Your task to perform on an android device: open app "Cash App" (install if not already installed) and enter user name: "submodules@gmail.com" and password: "heavenly" Image 0: 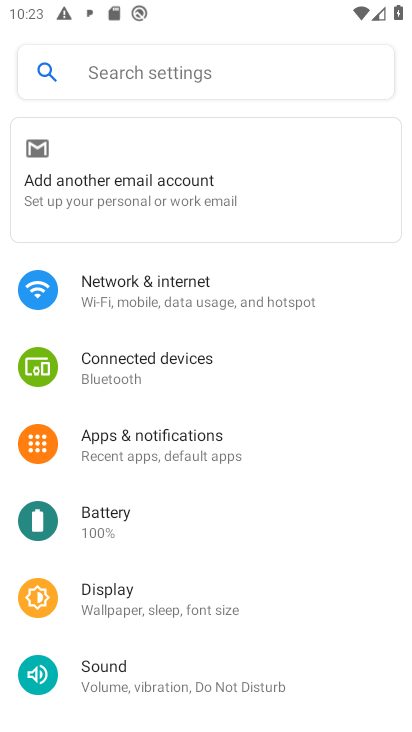
Step 0: press home button
Your task to perform on an android device: open app "Cash App" (install if not already installed) and enter user name: "submodules@gmail.com" and password: "heavenly" Image 1: 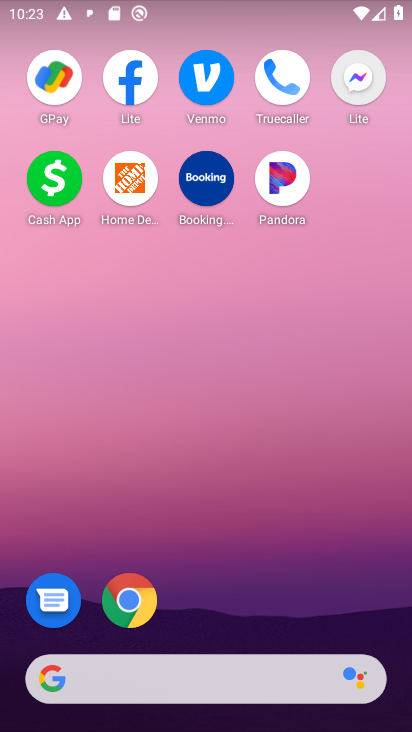
Step 1: drag from (191, 572) to (238, 211)
Your task to perform on an android device: open app "Cash App" (install if not already installed) and enter user name: "submodules@gmail.com" and password: "heavenly" Image 2: 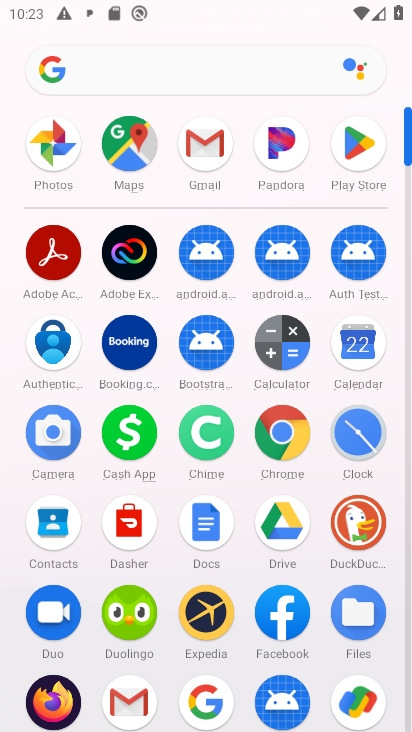
Step 2: click (376, 142)
Your task to perform on an android device: open app "Cash App" (install if not already installed) and enter user name: "submodules@gmail.com" and password: "heavenly" Image 3: 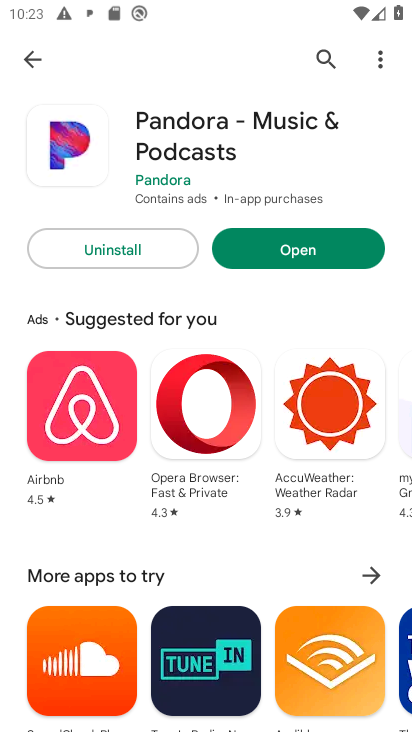
Step 3: click (379, 59)
Your task to perform on an android device: open app "Cash App" (install if not already installed) and enter user name: "submodules@gmail.com" and password: "heavenly" Image 4: 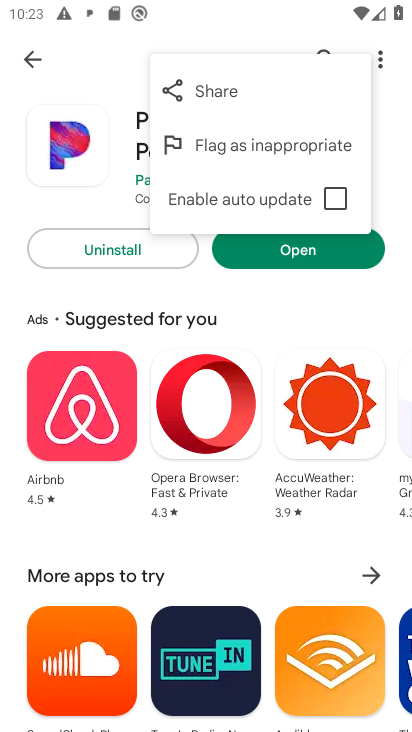
Step 4: click (8, 182)
Your task to perform on an android device: open app "Cash App" (install if not already installed) and enter user name: "submodules@gmail.com" and password: "heavenly" Image 5: 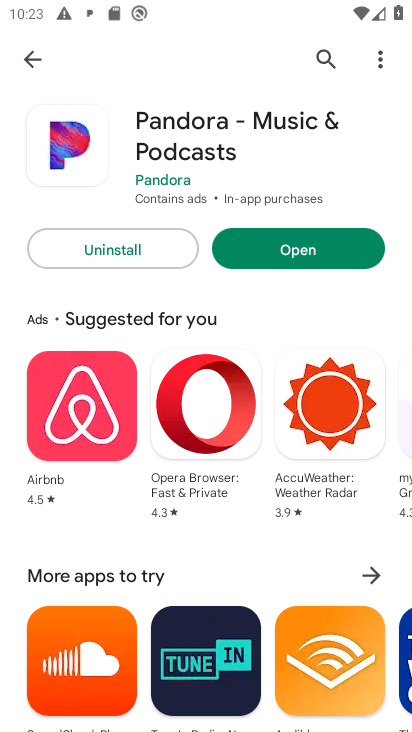
Step 5: click (323, 59)
Your task to perform on an android device: open app "Cash App" (install if not already installed) and enter user name: "submodules@gmail.com" and password: "heavenly" Image 6: 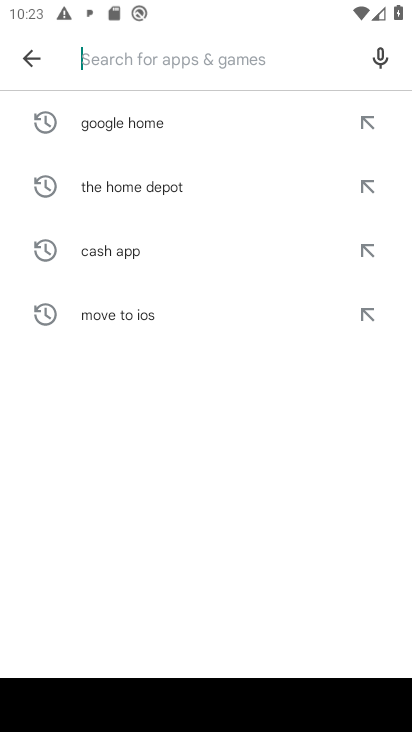
Step 6: type "Cash App"
Your task to perform on an android device: open app "Cash App" (install if not already installed) and enter user name: "submodules@gmail.com" and password: "heavenly" Image 7: 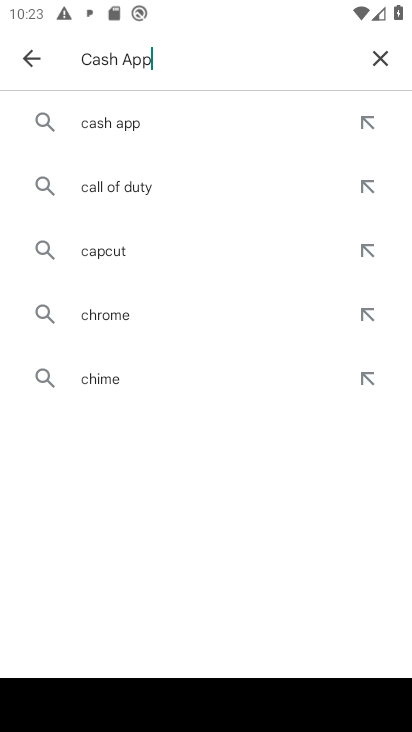
Step 7: type ""
Your task to perform on an android device: open app "Cash App" (install if not already installed) and enter user name: "submodules@gmail.com" and password: "heavenly" Image 8: 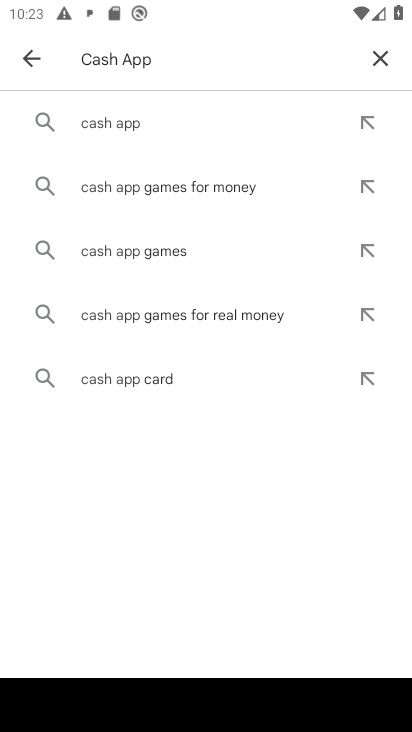
Step 8: click (95, 104)
Your task to perform on an android device: open app "Cash App" (install if not already installed) and enter user name: "submodules@gmail.com" and password: "heavenly" Image 9: 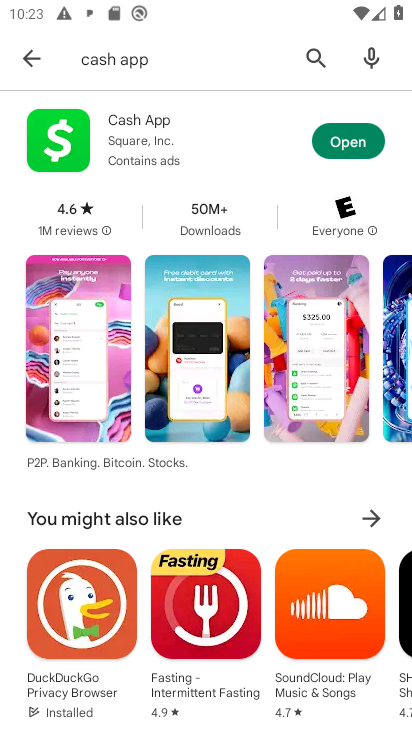
Step 9: click (343, 143)
Your task to perform on an android device: open app "Cash App" (install if not already installed) and enter user name: "submodules@gmail.com" and password: "heavenly" Image 10: 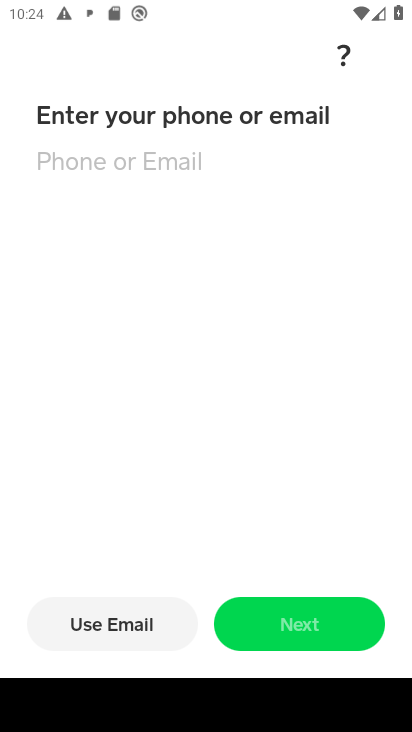
Step 10: task complete